Your task to perform on an android device: Show me popular games on the Play Store Image 0: 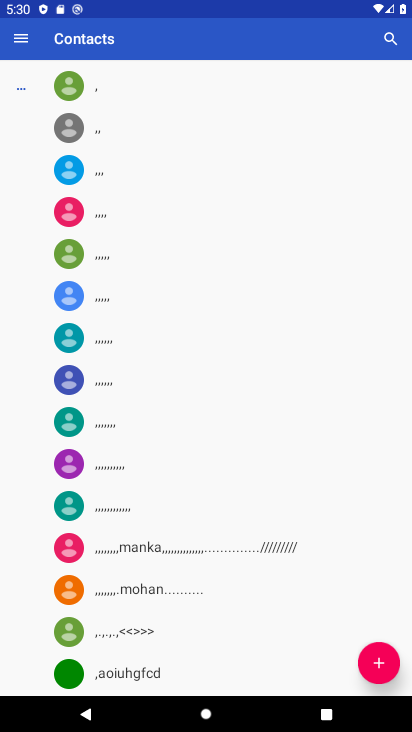
Step 0: press home button
Your task to perform on an android device: Show me popular games on the Play Store Image 1: 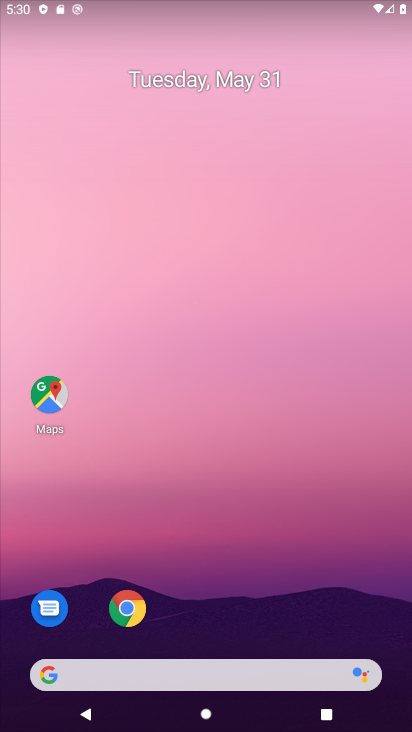
Step 1: drag from (229, 659) to (283, 226)
Your task to perform on an android device: Show me popular games on the Play Store Image 2: 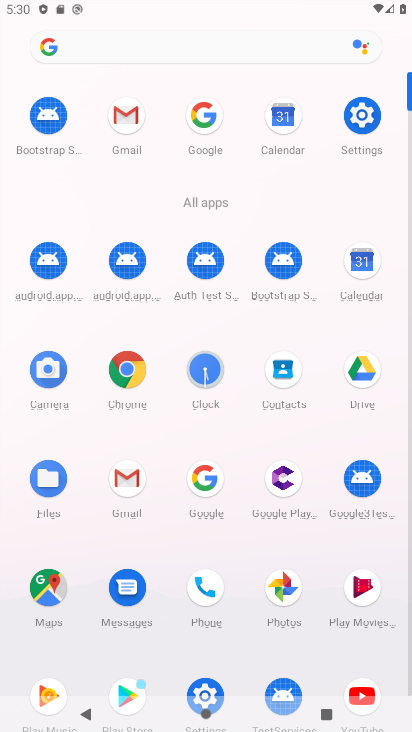
Step 2: click (129, 687)
Your task to perform on an android device: Show me popular games on the Play Store Image 3: 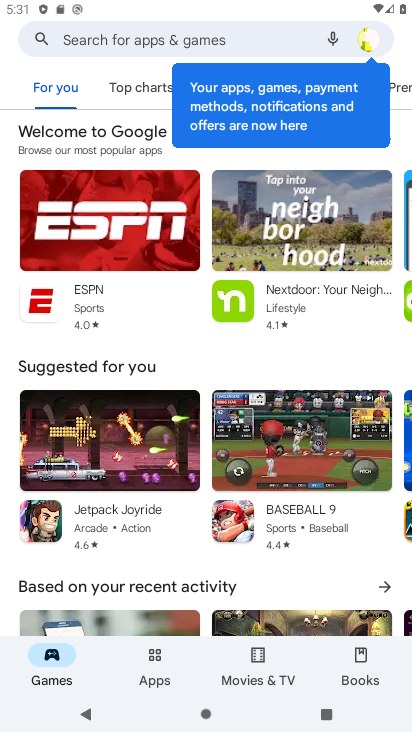
Step 3: click (241, 50)
Your task to perform on an android device: Show me popular games on the Play Store Image 4: 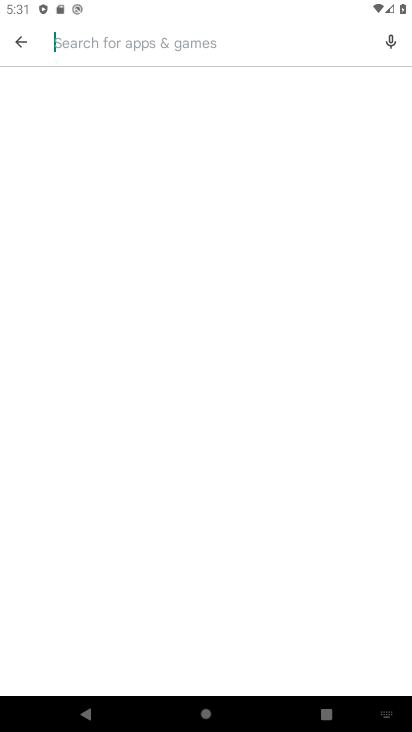
Step 4: type "popular games"
Your task to perform on an android device: Show me popular games on the Play Store Image 5: 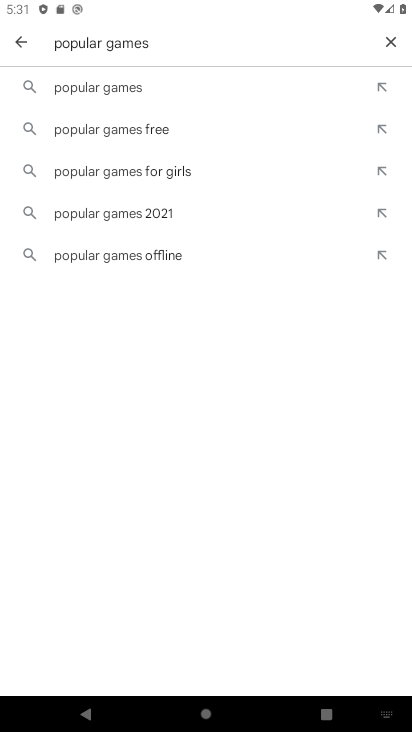
Step 5: click (105, 99)
Your task to perform on an android device: Show me popular games on the Play Store Image 6: 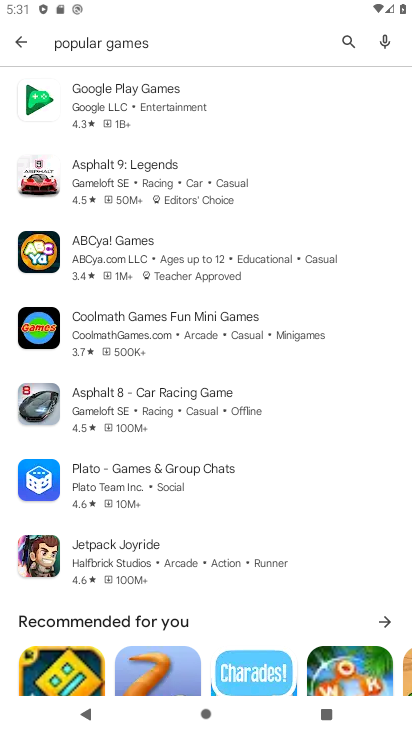
Step 6: task complete